Your task to perform on an android device: When is my next appointment? Image 0: 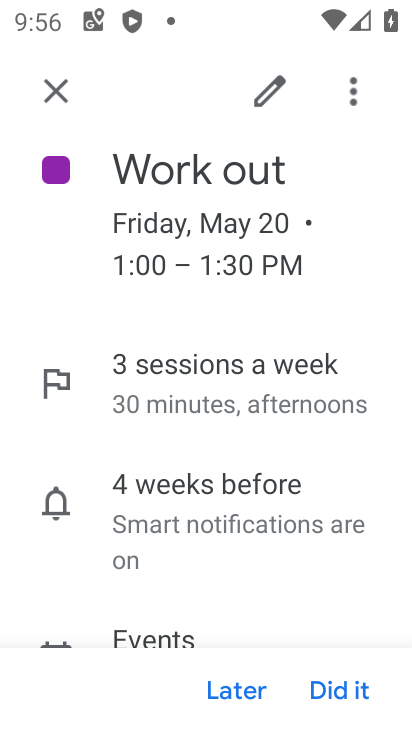
Step 0: press home button
Your task to perform on an android device: When is my next appointment? Image 1: 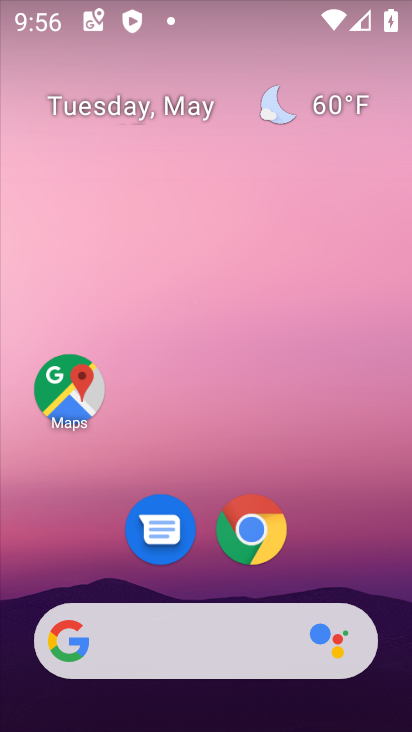
Step 1: drag from (152, 591) to (141, 444)
Your task to perform on an android device: When is my next appointment? Image 2: 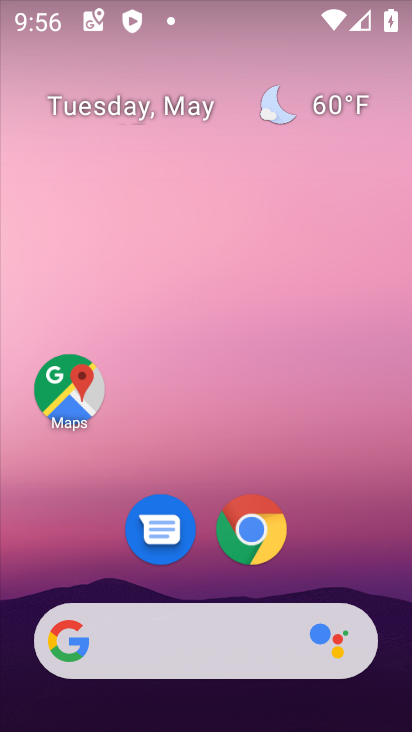
Step 2: drag from (147, 603) to (150, 248)
Your task to perform on an android device: When is my next appointment? Image 3: 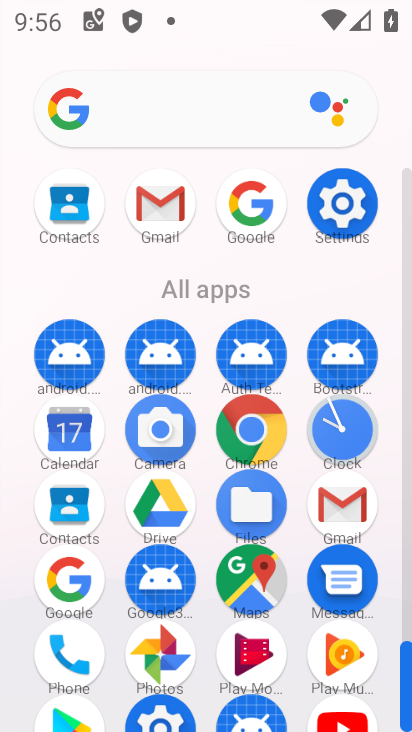
Step 3: click (59, 463)
Your task to perform on an android device: When is my next appointment? Image 4: 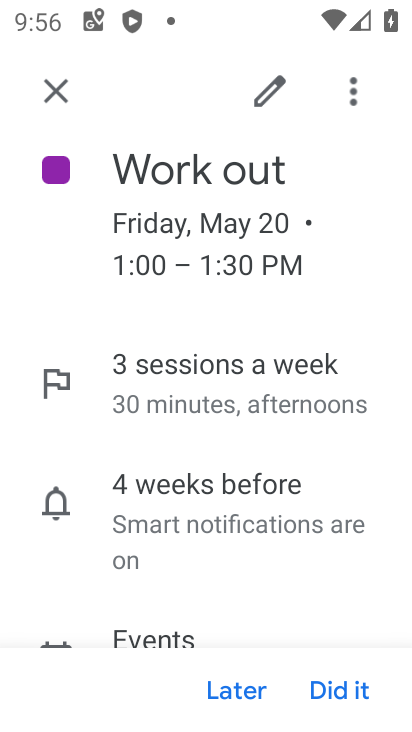
Step 4: click (53, 100)
Your task to perform on an android device: When is my next appointment? Image 5: 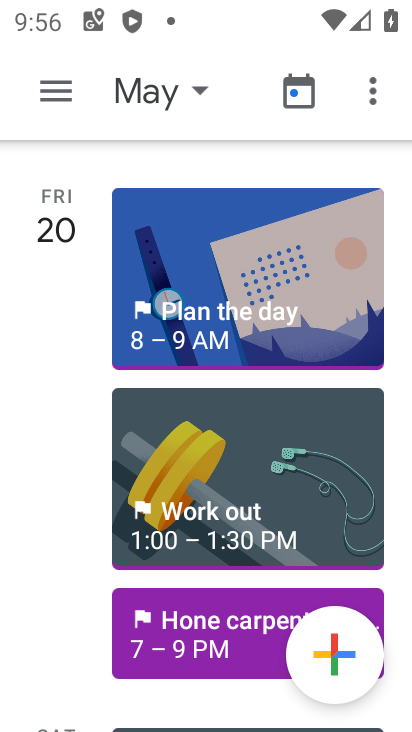
Step 5: drag from (214, 229) to (229, 568)
Your task to perform on an android device: When is my next appointment? Image 6: 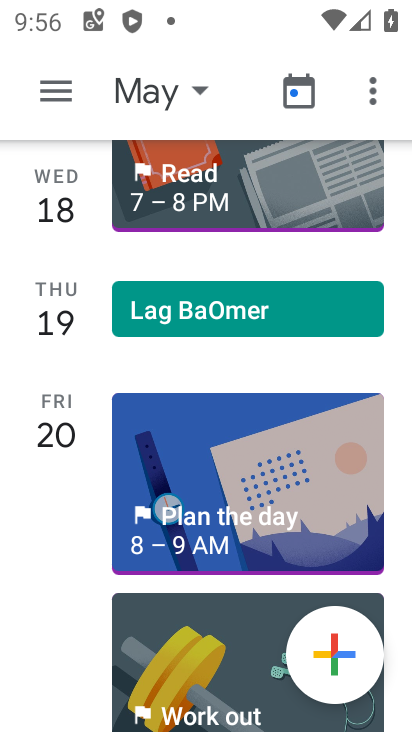
Step 6: click (230, 186)
Your task to perform on an android device: When is my next appointment? Image 7: 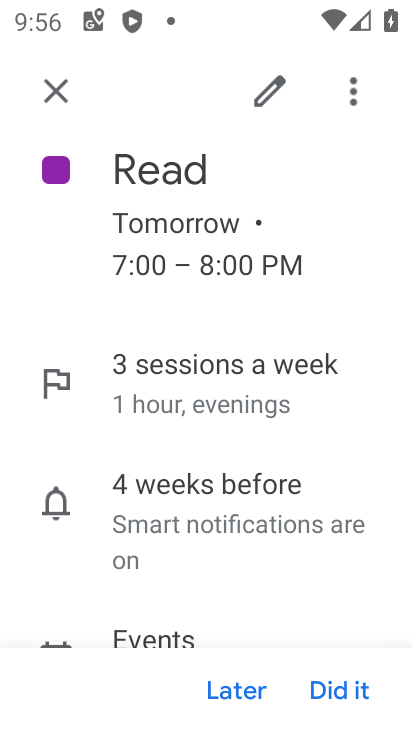
Step 7: task complete